Your task to perform on an android device: Go to Maps Image 0: 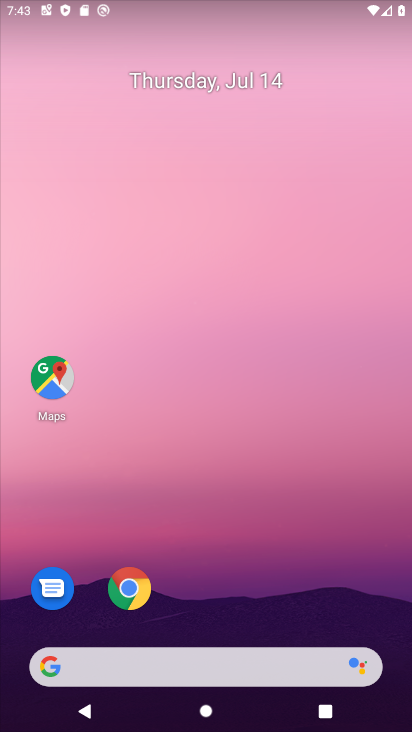
Step 0: drag from (291, 295) to (231, 45)
Your task to perform on an android device: Go to Maps Image 1: 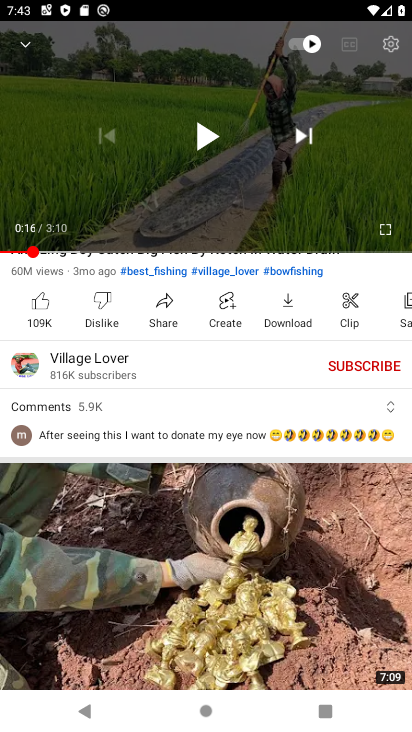
Step 1: press home button
Your task to perform on an android device: Go to Maps Image 2: 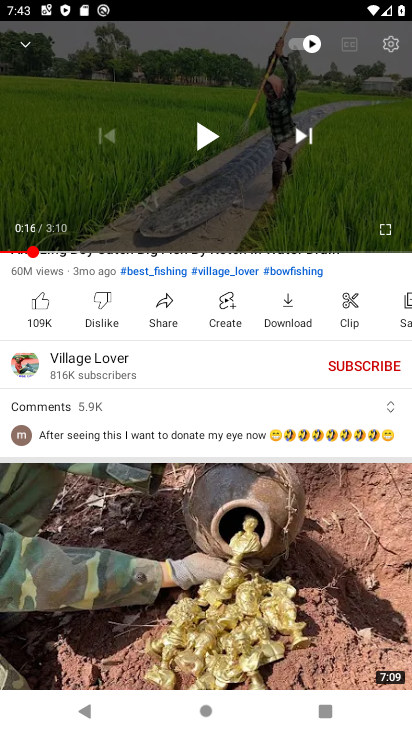
Step 2: drag from (374, 665) to (236, 79)
Your task to perform on an android device: Go to Maps Image 3: 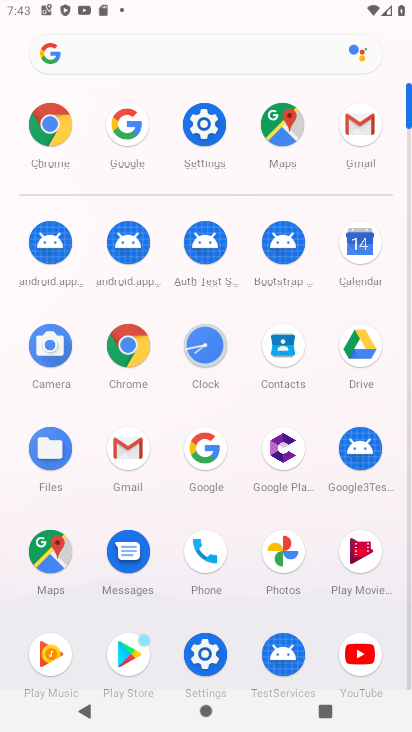
Step 3: click (42, 535)
Your task to perform on an android device: Go to Maps Image 4: 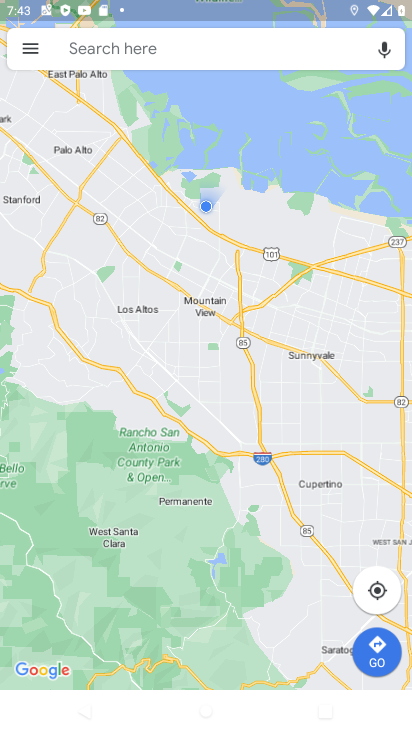
Step 4: task complete